Your task to perform on an android device: Open Youtube and go to "Your channel" Image 0: 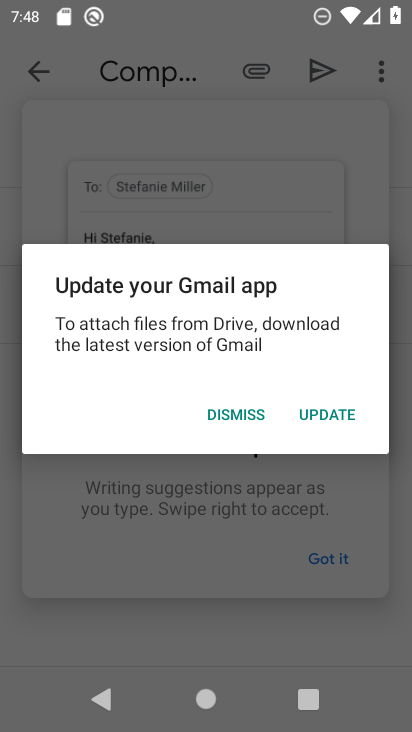
Step 0: press home button
Your task to perform on an android device: Open Youtube and go to "Your channel" Image 1: 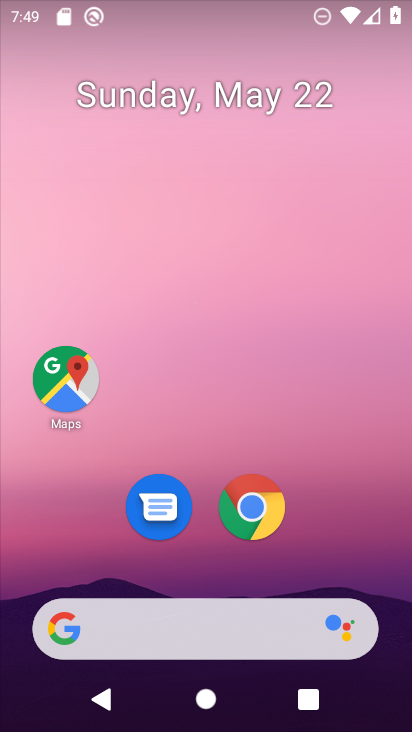
Step 1: drag from (238, 669) to (250, 29)
Your task to perform on an android device: Open Youtube and go to "Your channel" Image 2: 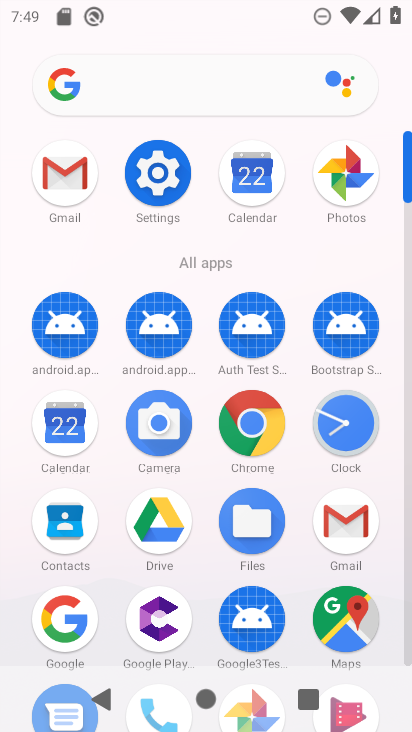
Step 2: drag from (301, 462) to (234, 27)
Your task to perform on an android device: Open Youtube and go to "Your channel" Image 3: 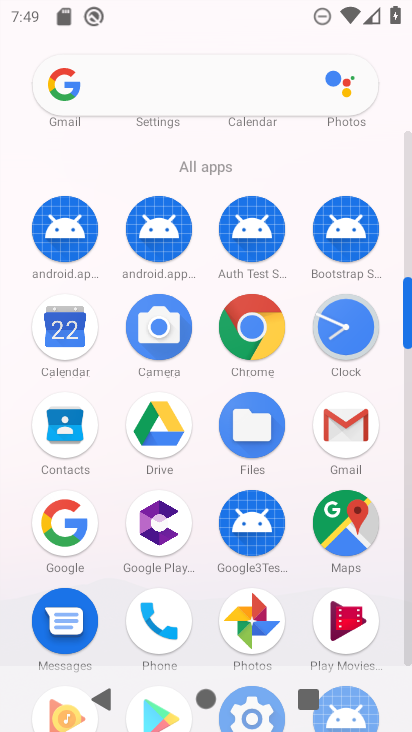
Step 3: drag from (242, 569) to (155, 63)
Your task to perform on an android device: Open Youtube and go to "Your channel" Image 4: 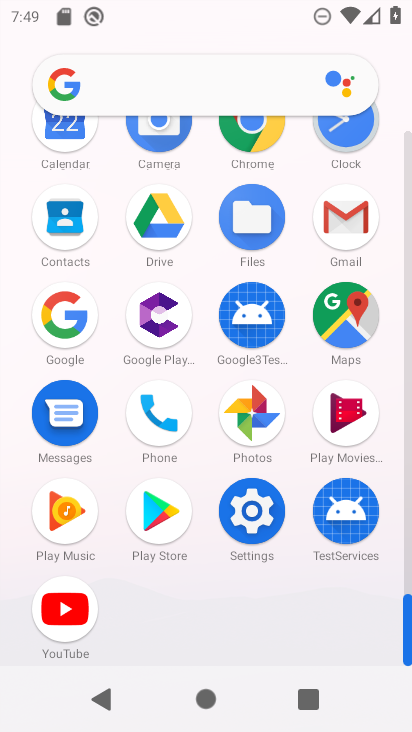
Step 4: click (56, 616)
Your task to perform on an android device: Open Youtube and go to "Your channel" Image 5: 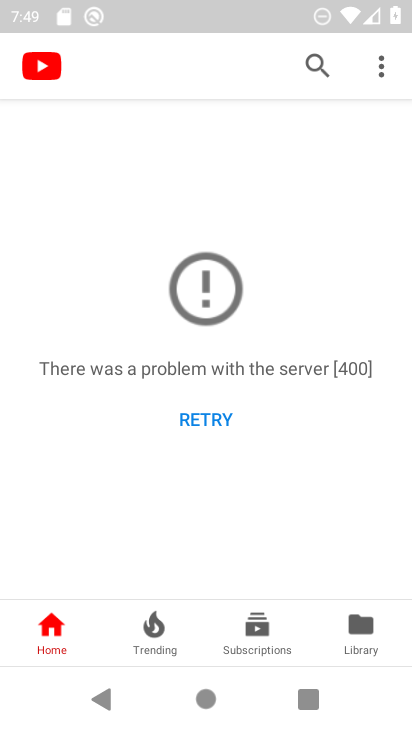
Step 5: click (381, 63)
Your task to perform on an android device: Open Youtube and go to "Your channel" Image 6: 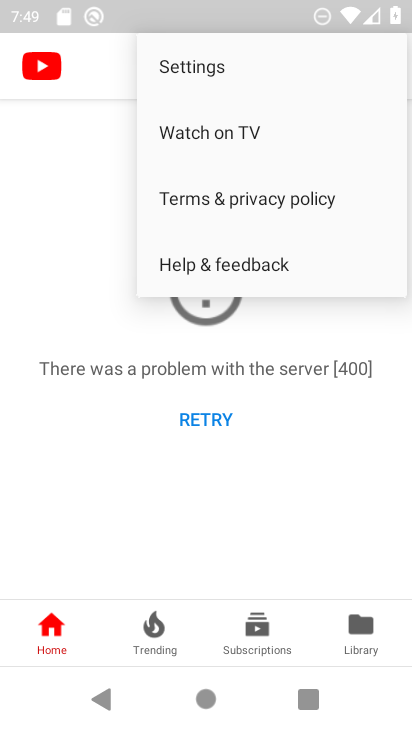
Step 6: click (82, 207)
Your task to perform on an android device: Open Youtube and go to "Your channel" Image 7: 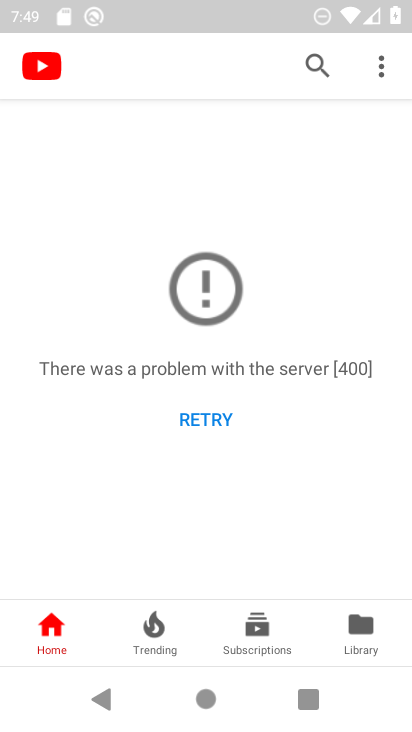
Step 7: click (371, 635)
Your task to perform on an android device: Open Youtube and go to "Your channel" Image 8: 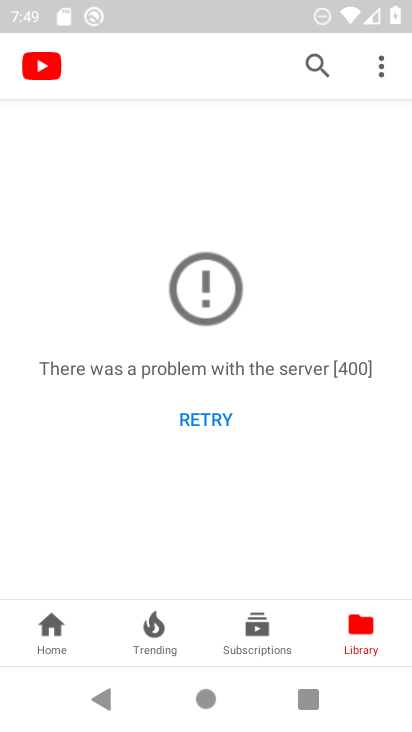
Step 8: click (381, 58)
Your task to perform on an android device: Open Youtube and go to "Your channel" Image 9: 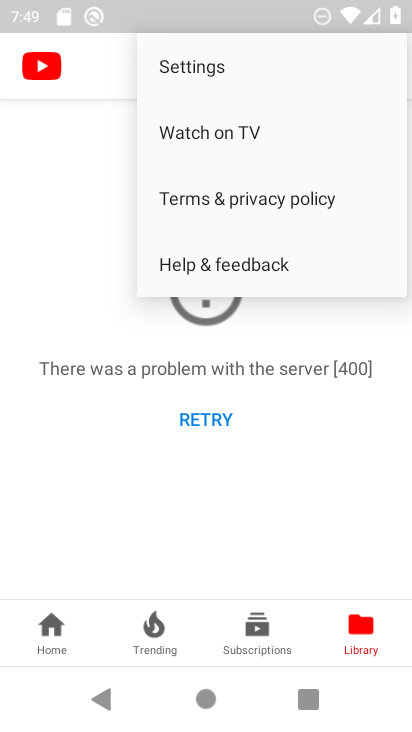
Step 9: click (48, 617)
Your task to perform on an android device: Open Youtube and go to "Your channel" Image 10: 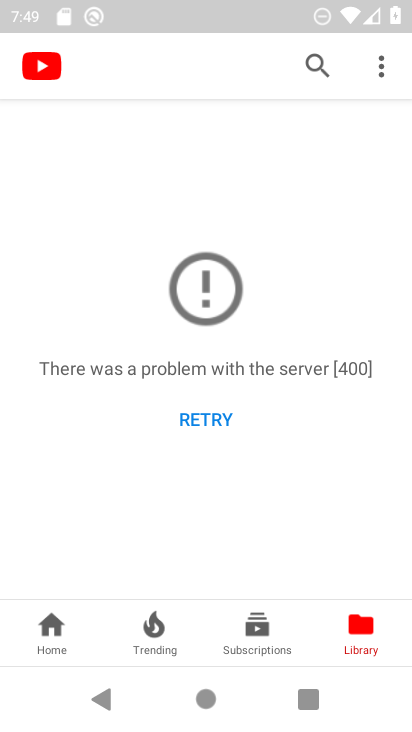
Step 10: task complete